Your task to perform on an android device: read, delete, or share a saved page in the chrome app Image 0: 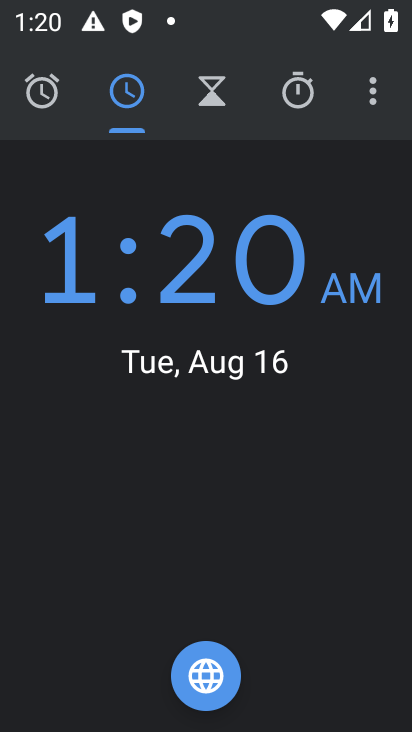
Step 0: press home button
Your task to perform on an android device: read, delete, or share a saved page in the chrome app Image 1: 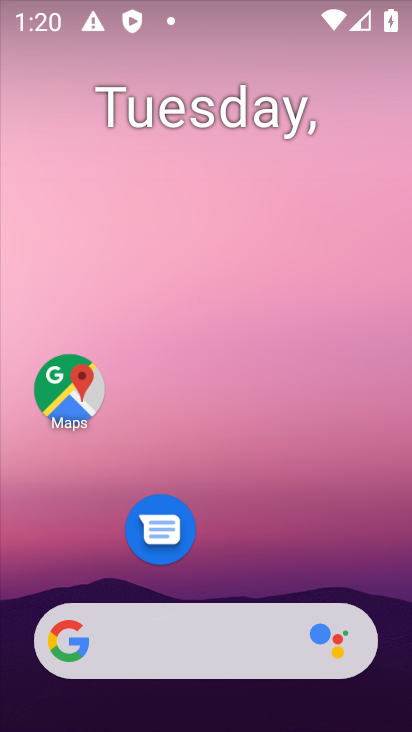
Step 1: drag from (264, 579) to (217, 202)
Your task to perform on an android device: read, delete, or share a saved page in the chrome app Image 2: 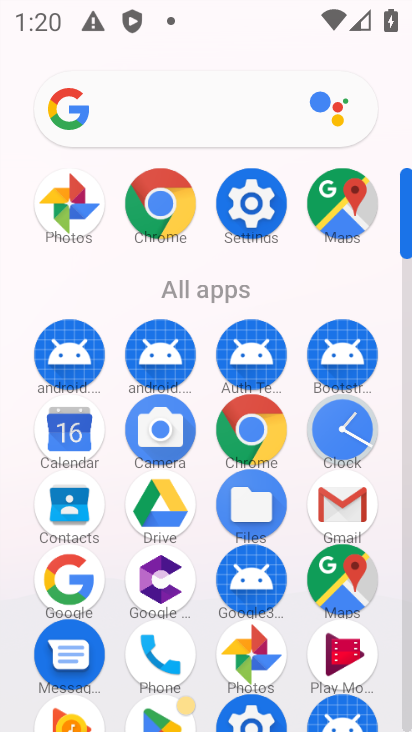
Step 2: click (175, 226)
Your task to perform on an android device: read, delete, or share a saved page in the chrome app Image 3: 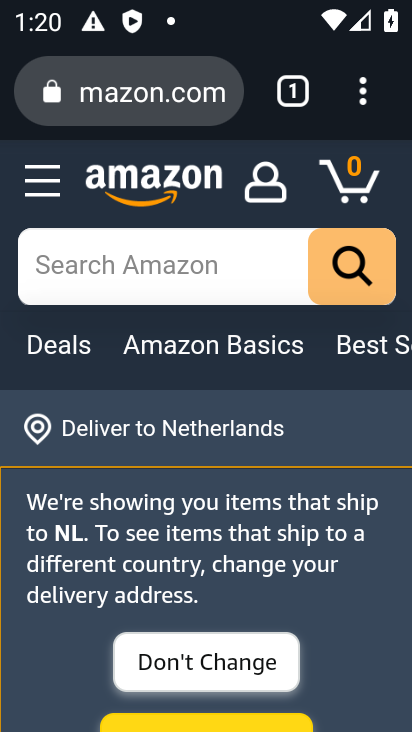
Step 3: click (370, 91)
Your task to perform on an android device: read, delete, or share a saved page in the chrome app Image 4: 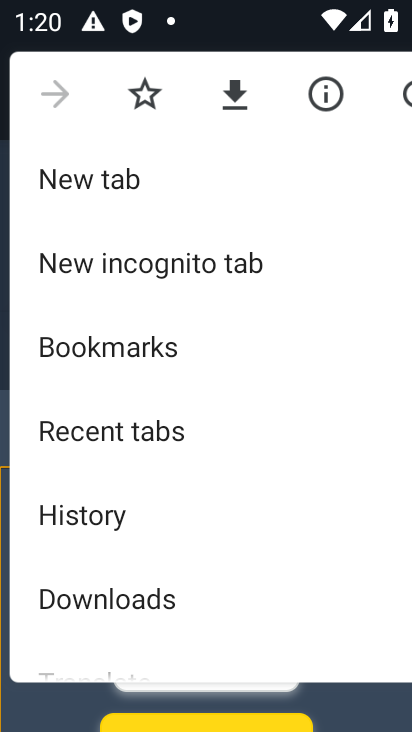
Step 4: click (260, 598)
Your task to perform on an android device: read, delete, or share a saved page in the chrome app Image 5: 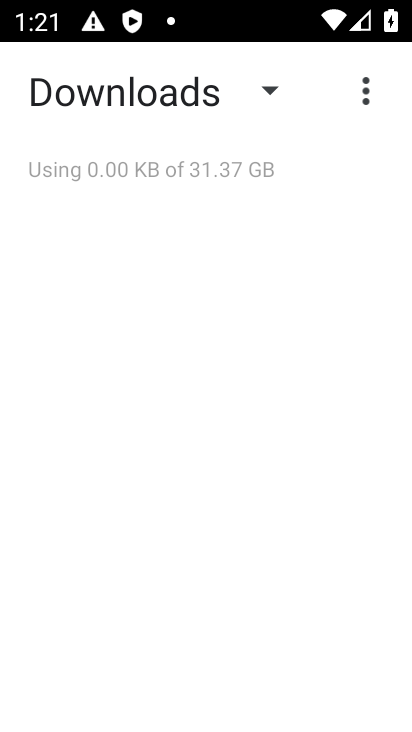
Step 5: task complete